Your task to perform on an android device: Open the calendar and show me this week's events Image 0: 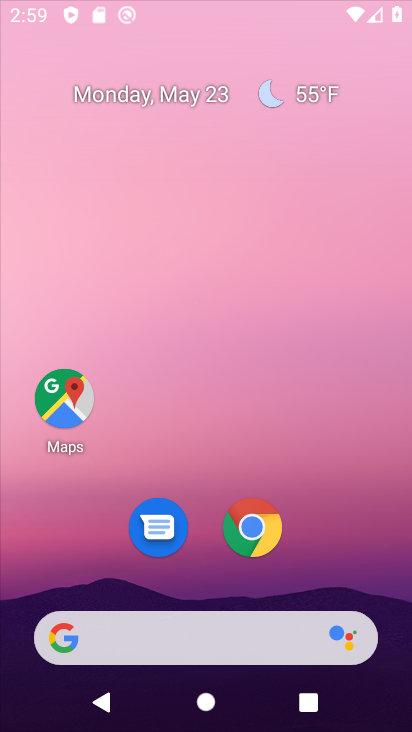
Step 0: press home button
Your task to perform on an android device: Open the calendar and show me this week's events Image 1: 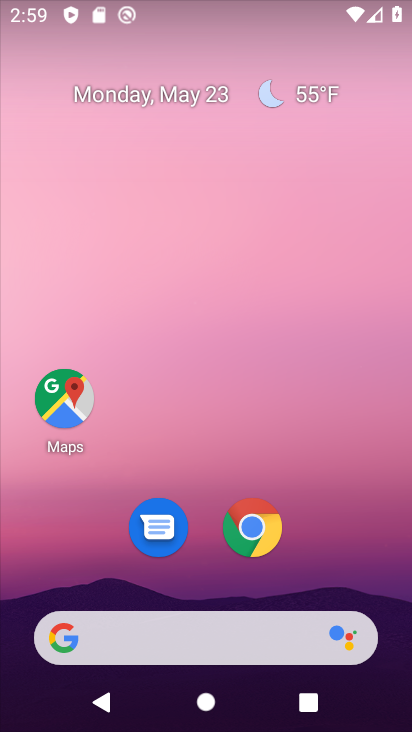
Step 1: drag from (212, 582) to (227, 46)
Your task to perform on an android device: Open the calendar and show me this week's events Image 2: 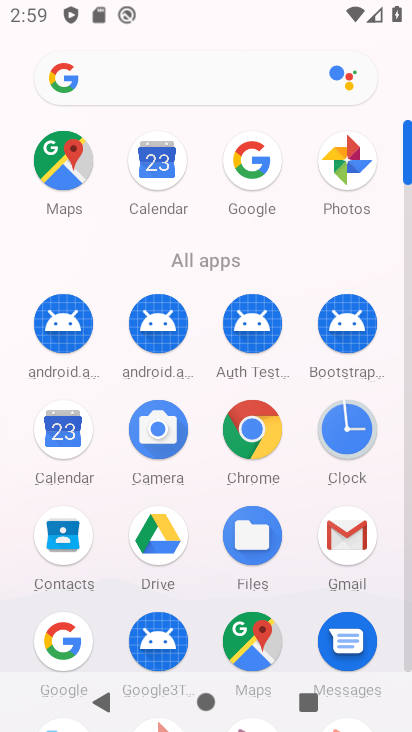
Step 2: click (156, 157)
Your task to perform on an android device: Open the calendar and show me this week's events Image 3: 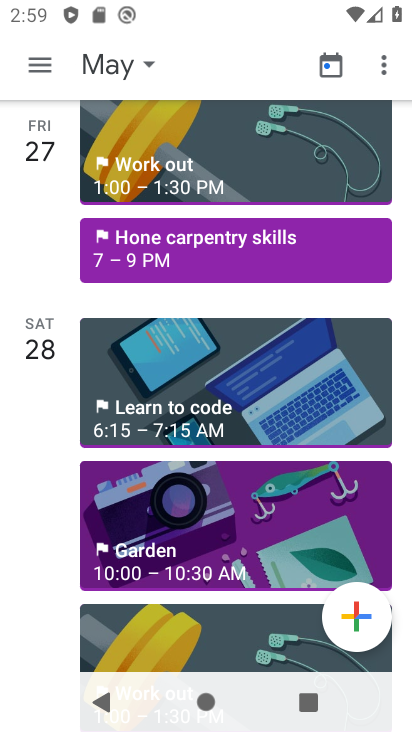
Step 3: press home button
Your task to perform on an android device: Open the calendar and show me this week's events Image 4: 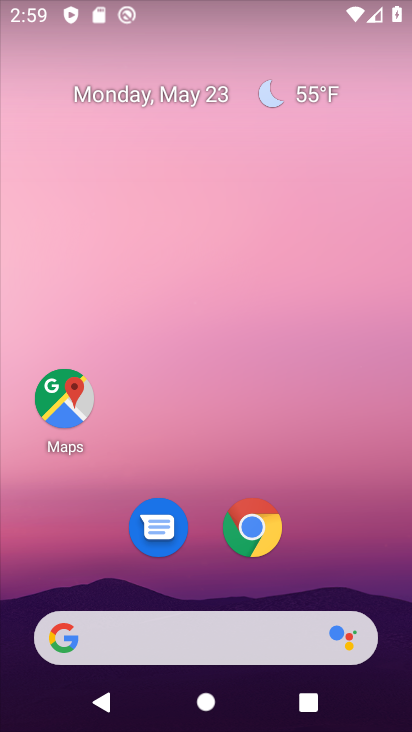
Step 4: drag from (209, 580) to (251, 42)
Your task to perform on an android device: Open the calendar and show me this week's events Image 5: 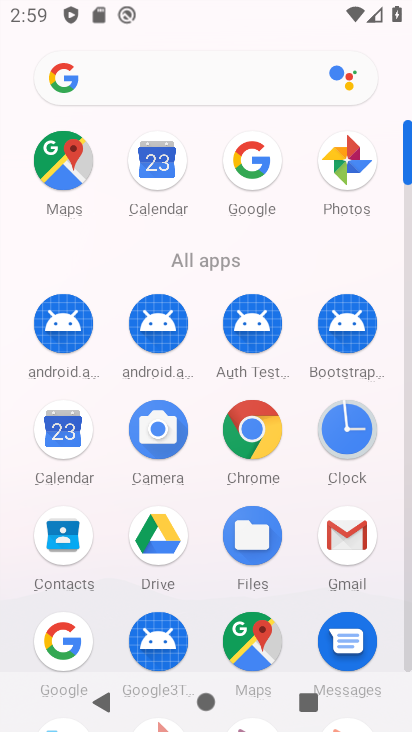
Step 5: click (153, 164)
Your task to perform on an android device: Open the calendar and show me this week's events Image 6: 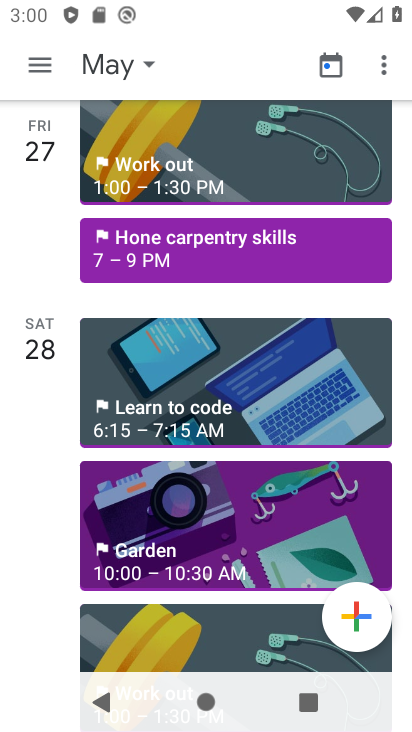
Step 6: drag from (30, 589) to (65, 214)
Your task to perform on an android device: Open the calendar and show me this week's events Image 7: 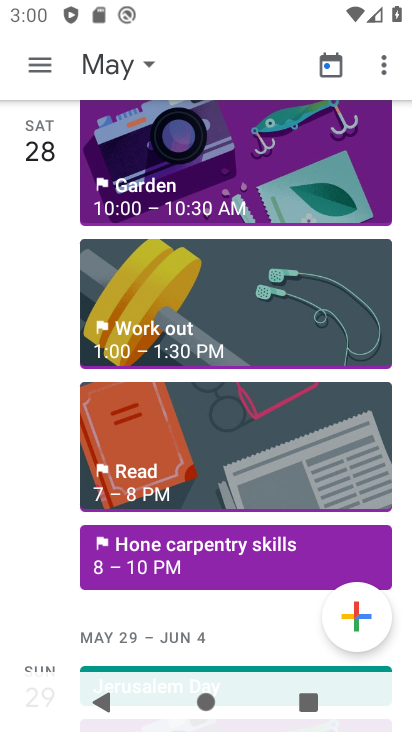
Step 7: click (36, 65)
Your task to perform on an android device: Open the calendar and show me this week's events Image 8: 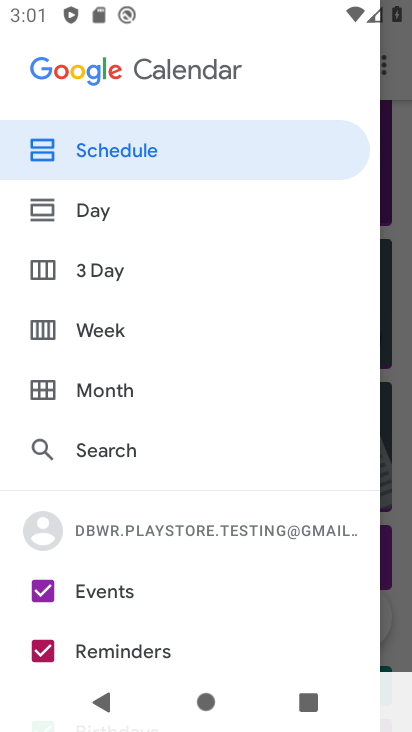
Step 8: click (65, 323)
Your task to perform on an android device: Open the calendar and show me this week's events Image 9: 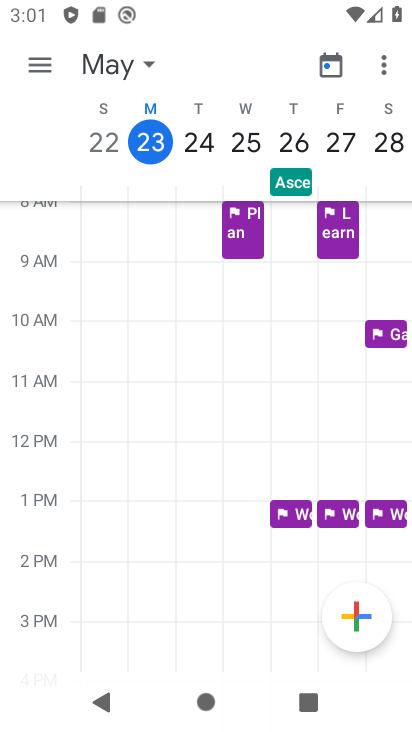
Step 9: click (144, 143)
Your task to perform on an android device: Open the calendar and show me this week's events Image 10: 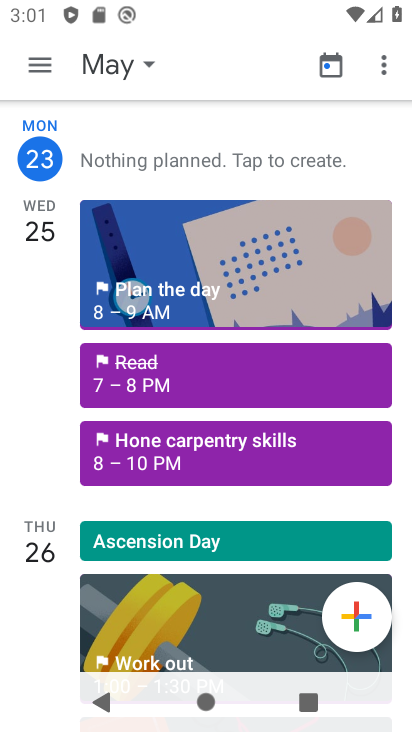
Step 10: task complete